Your task to perform on an android device: Open Google Chrome and open the bookmarks view Image 0: 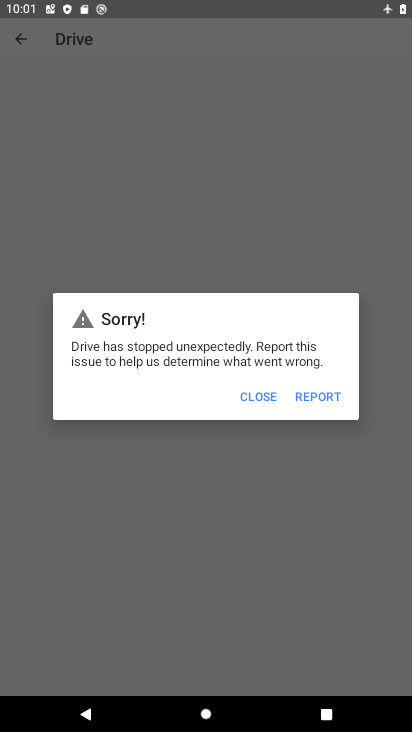
Step 0: click (278, 380)
Your task to perform on an android device: Open Google Chrome and open the bookmarks view Image 1: 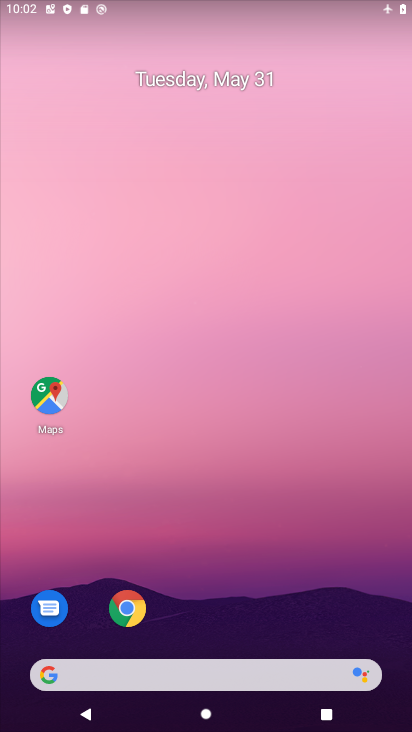
Step 1: drag from (212, 643) to (180, 60)
Your task to perform on an android device: Open Google Chrome and open the bookmarks view Image 2: 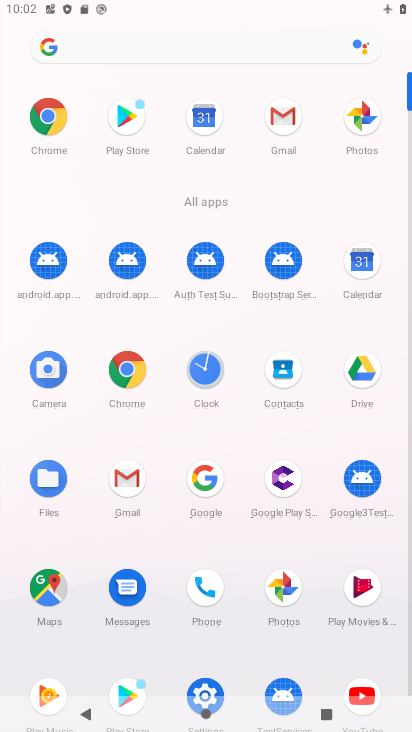
Step 2: click (132, 366)
Your task to perform on an android device: Open Google Chrome and open the bookmarks view Image 3: 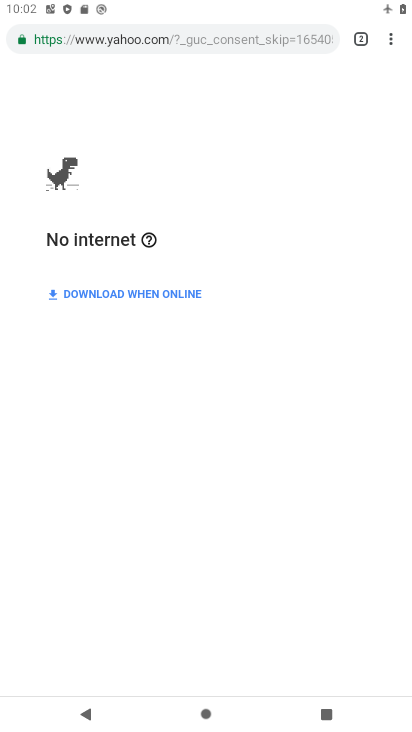
Step 3: click (397, 36)
Your task to perform on an android device: Open Google Chrome and open the bookmarks view Image 4: 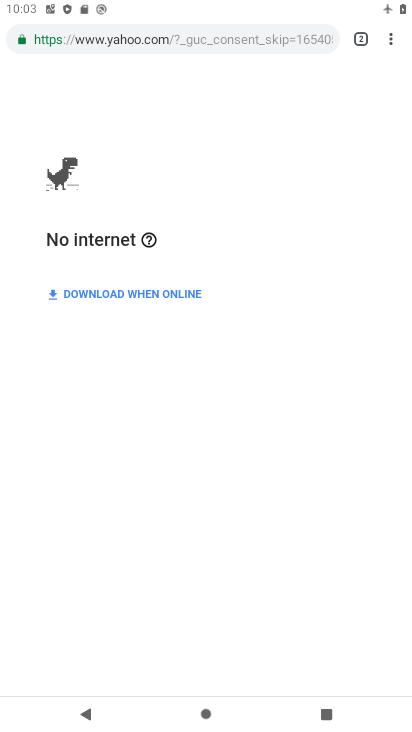
Step 4: task complete